Your task to perform on an android device: Go to network settings Image 0: 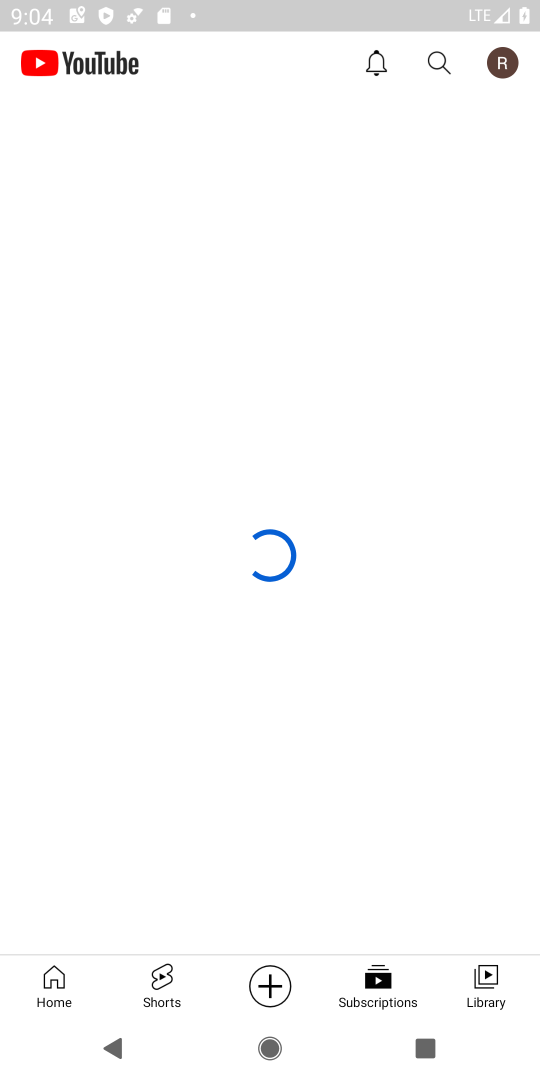
Step 0: press home button
Your task to perform on an android device: Go to network settings Image 1: 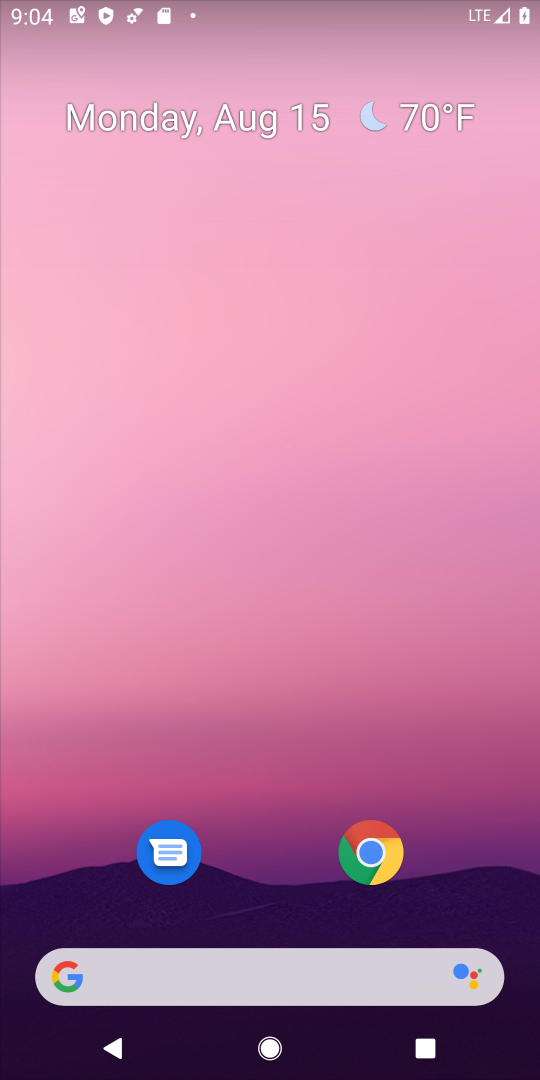
Step 1: drag from (248, 936) to (299, 177)
Your task to perform on an android device: Go to network settings Image 2: 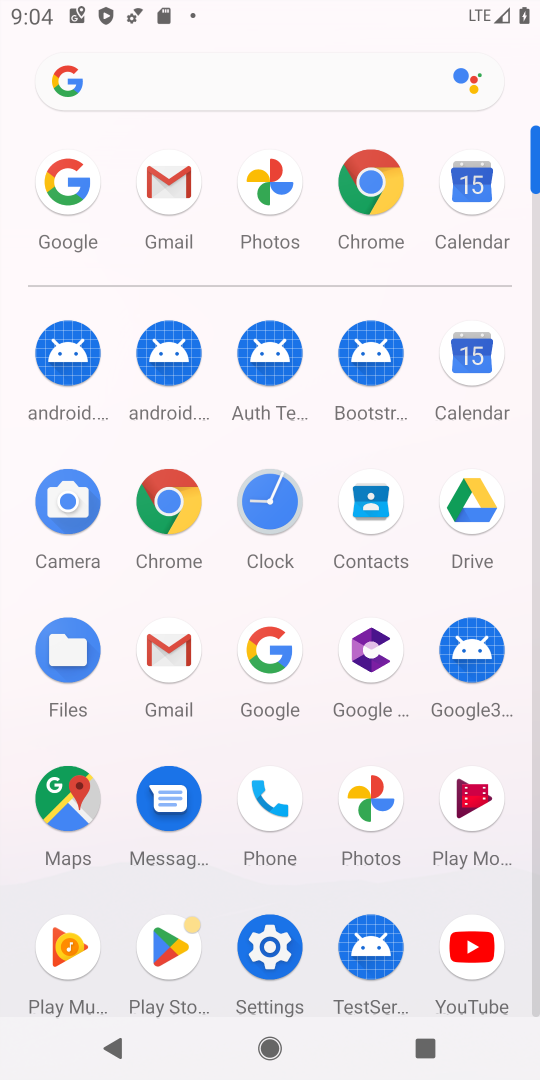
Step 2: click (269, 947)
Your task to perform on an android device: Go to network settings Image 3: 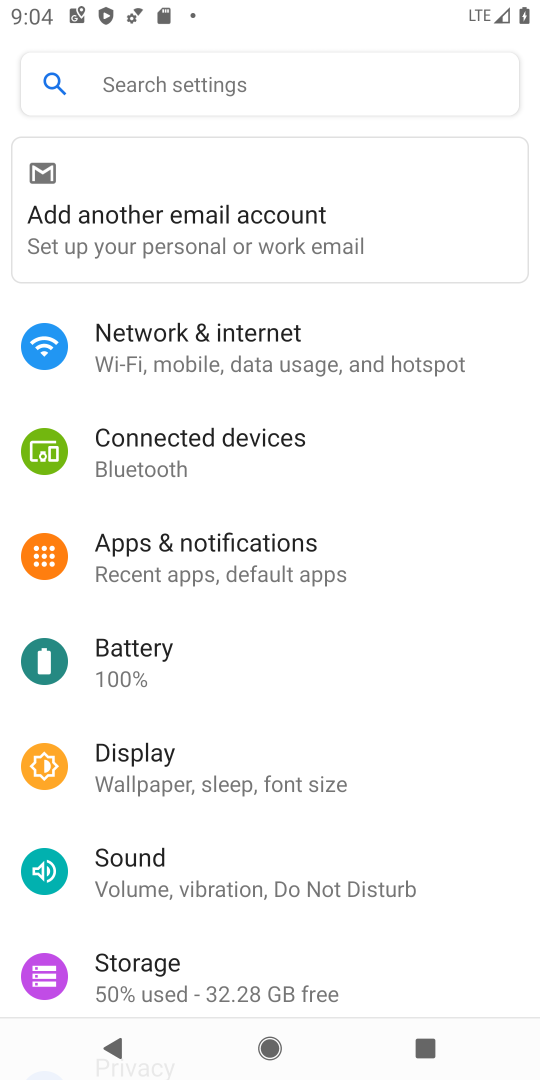
Step 3: click (234, 349)
Your task to perform on an android device: Go to network settings Image 4: 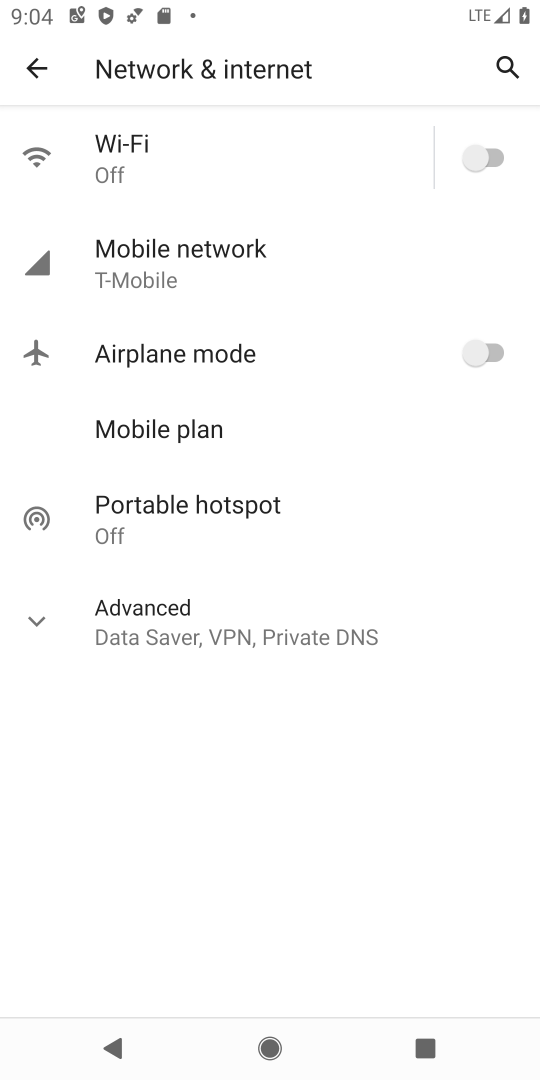
Step 4: task complete